Your task to perform on an android device: open a new tab in the chrome app Image 0: 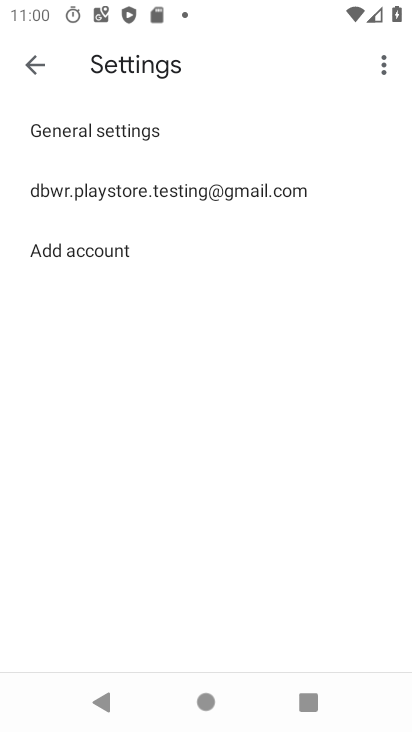
Step 0: press home button
Your task to perform on an android device: open a new tab in the chrome app Image 1: 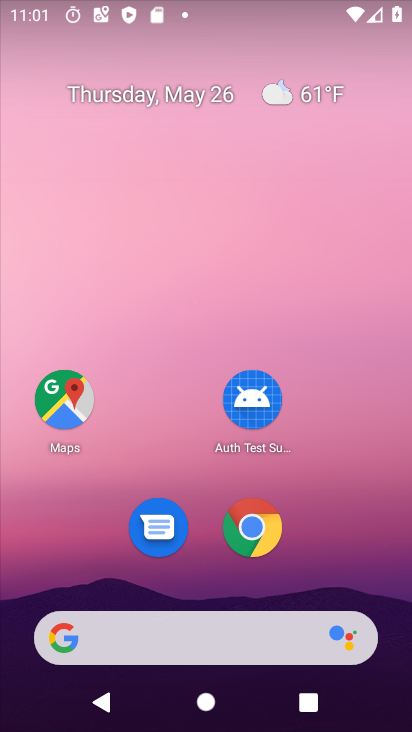
Step 1: drag from (336, 515) to (346, 178)
Your task to perform on an android device: open a new tab in the chrome app Image 2: 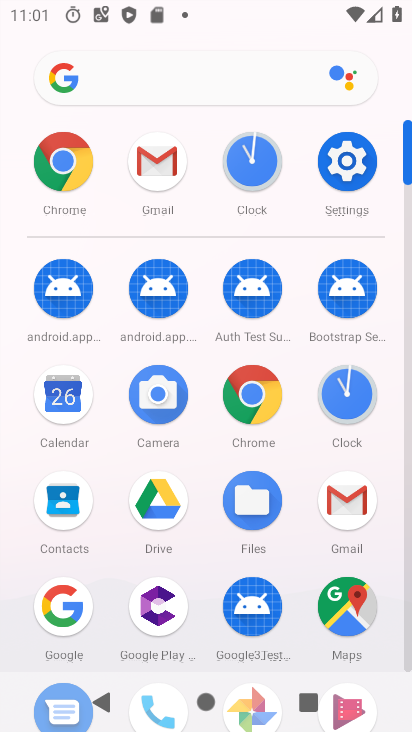
Step 2: click (67, 176)
Your task to perform on an android device: open a new tab in the chrome app Image 3: 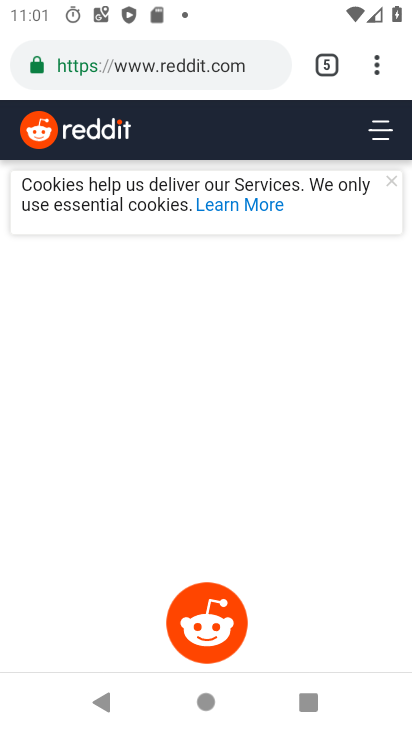
Step 3: task complete